Your task to perform on an android device: open app "Walmart Shopping & Grocery" (install if not already installed) Image 0: 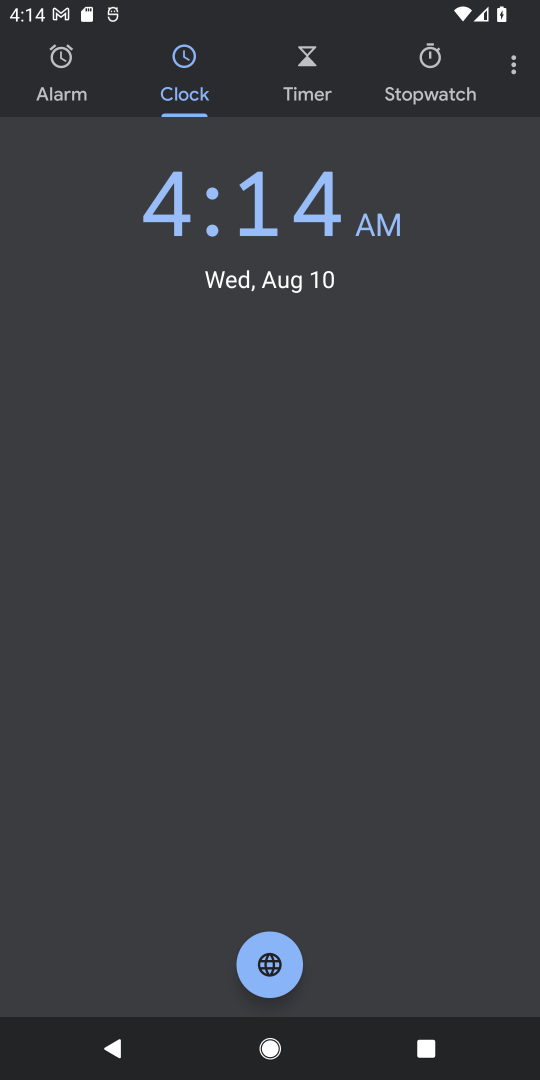
Step 0: press home button
Your task to perform on an android device: open app "Walmart Shopping & Grocery" (install if not already installed) Image 1: 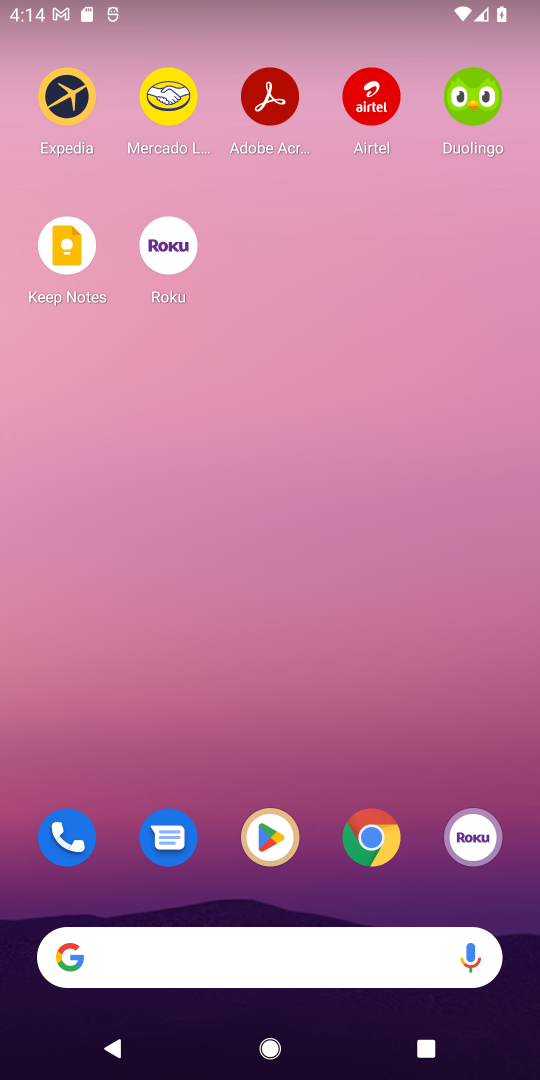
Step 1: press home button
Your task to perform on an android device: open app "Walmart Shopping & Grocery" (install if not already installed) Image 2: 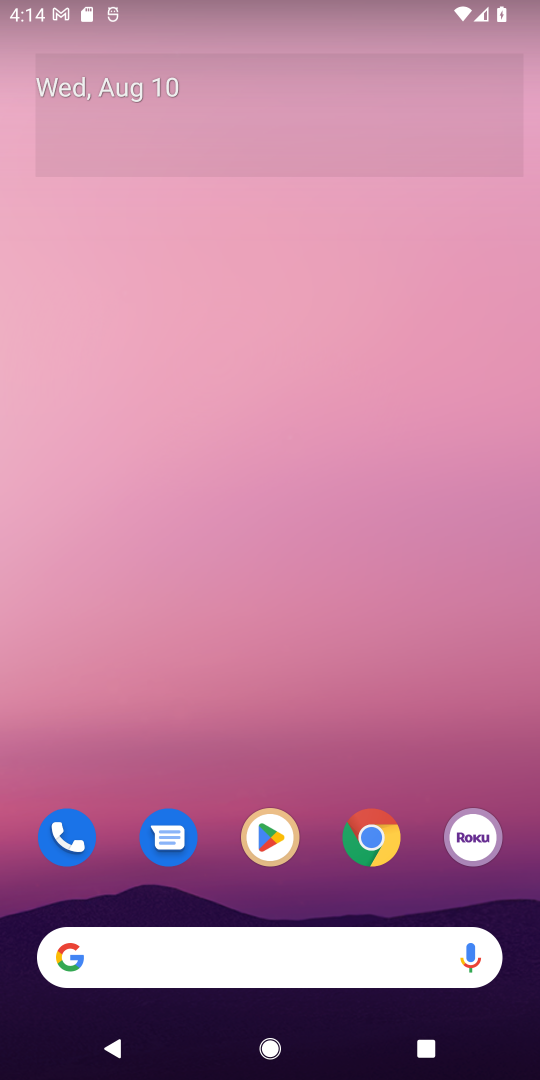
Step 2: click (268, 818)
Your task to perform on an android device: open app "Walmart Shopping & Grocery" (install if not already installed) Image 3: 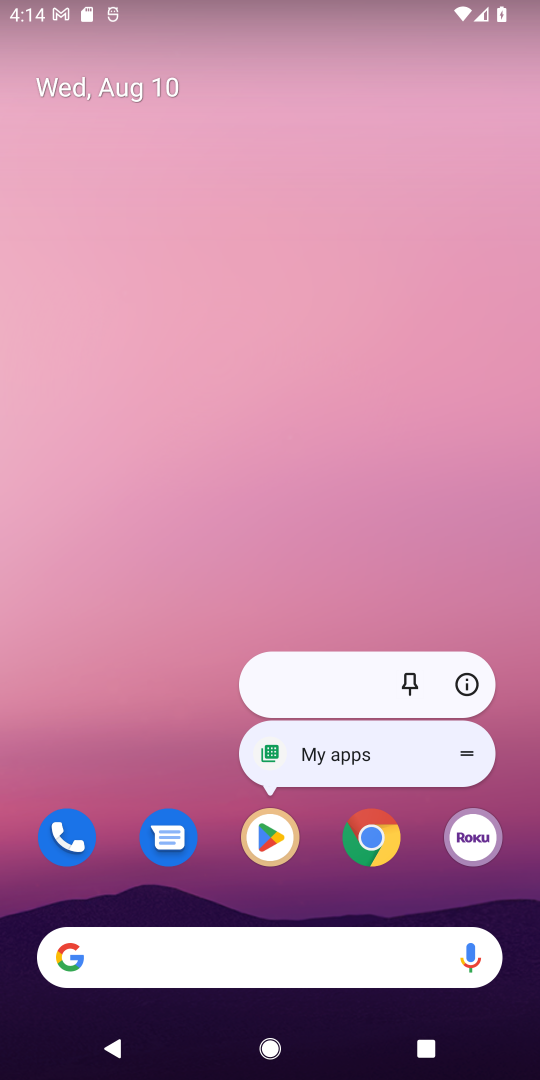
Step 3: click (268, 816)
Your task to perform on an android device: open app "Walmart Shopping & Grocery" (install if not already installed) Image 4: 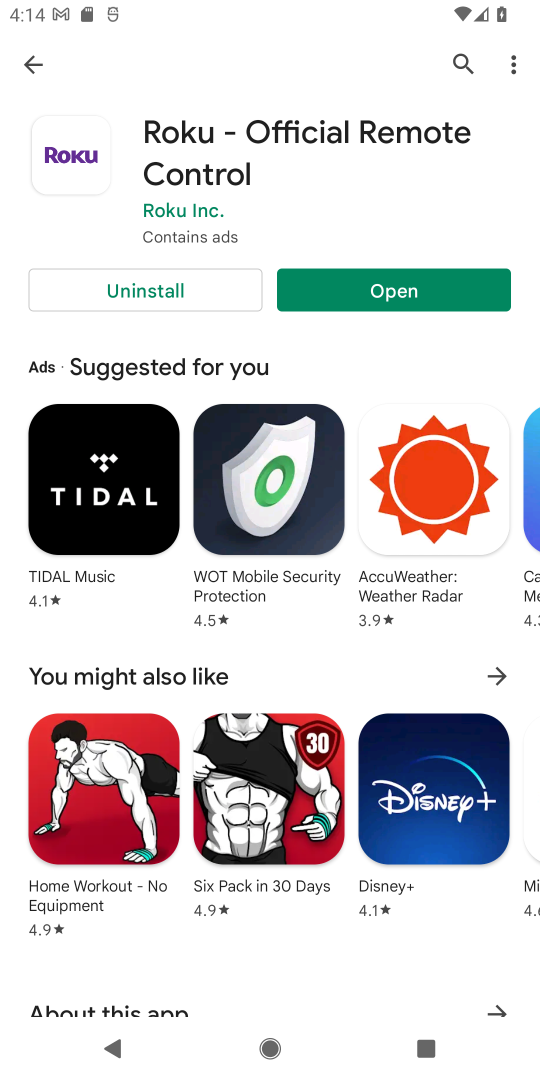
Step 4: click (463, 61)
Your task to perform on an android device: open app "Walmart Shopping & Grocery" (install if not already installed) Image 5: 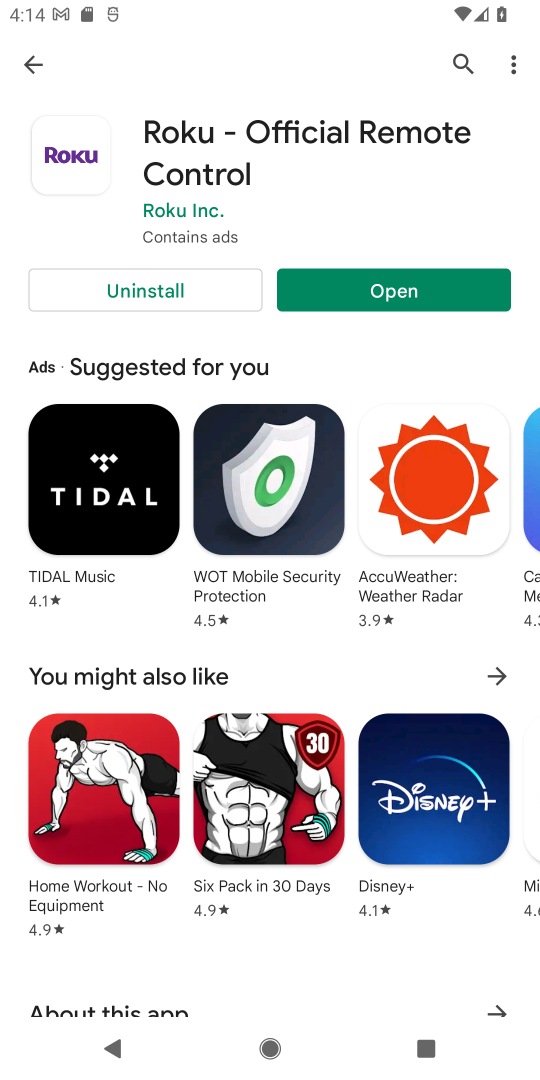
Step 5: click (463, 49)
Your task to perform on an android device: open app "Walmart Shopping & Grocery" (install if not already installed) Image 6: 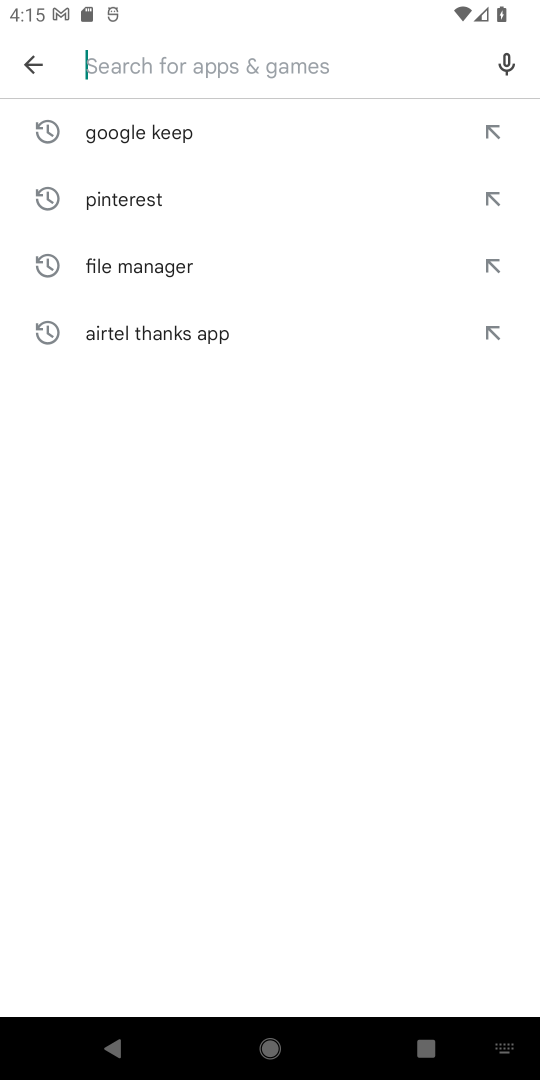
Step 6: type "Walmart Shopping & Grocery"
Your task to perform on an android device: open app "Walmart Shopping & Grocery" (install if not already installed) Image 7: 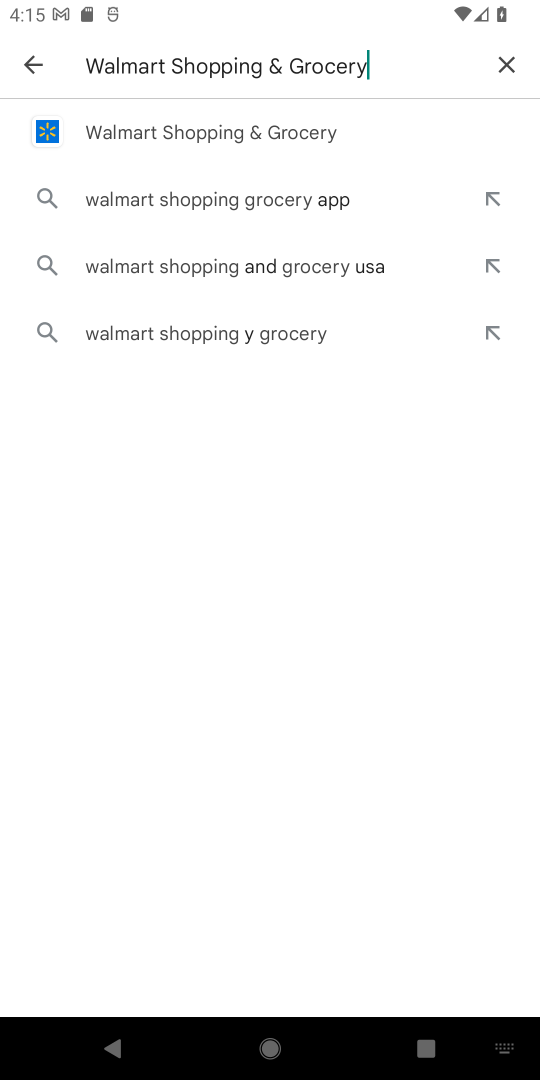
Step 7: click (199, 138)
Your task to perform on an android device: open app "Walmart Shopping & Grocery" (install if not already installed) Image 8: 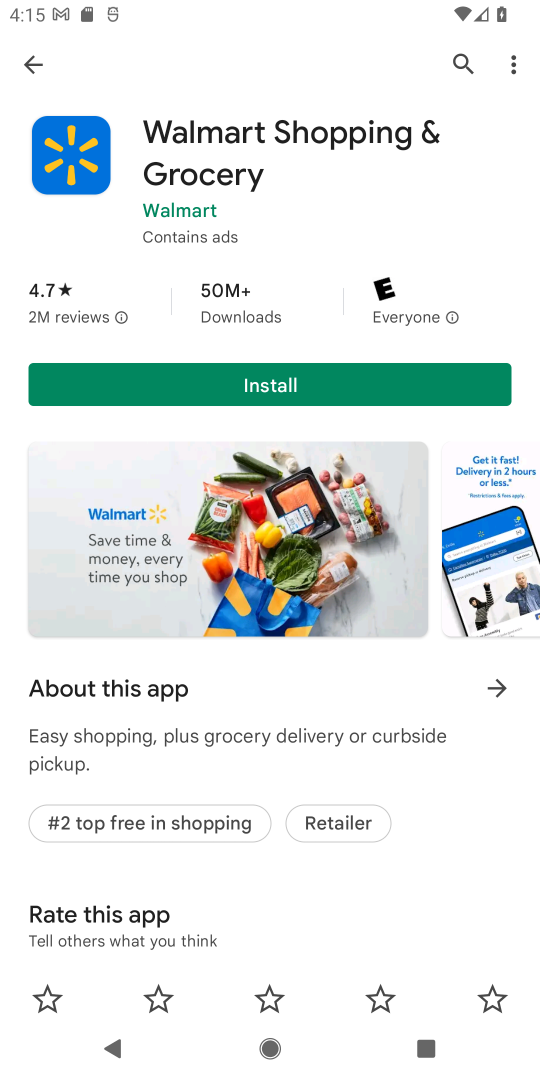
Step 8: click (266, 385)
Your task to perform on an android device: open app "Walmart Shopping & Grocery" (install if not already installed) Image 9: 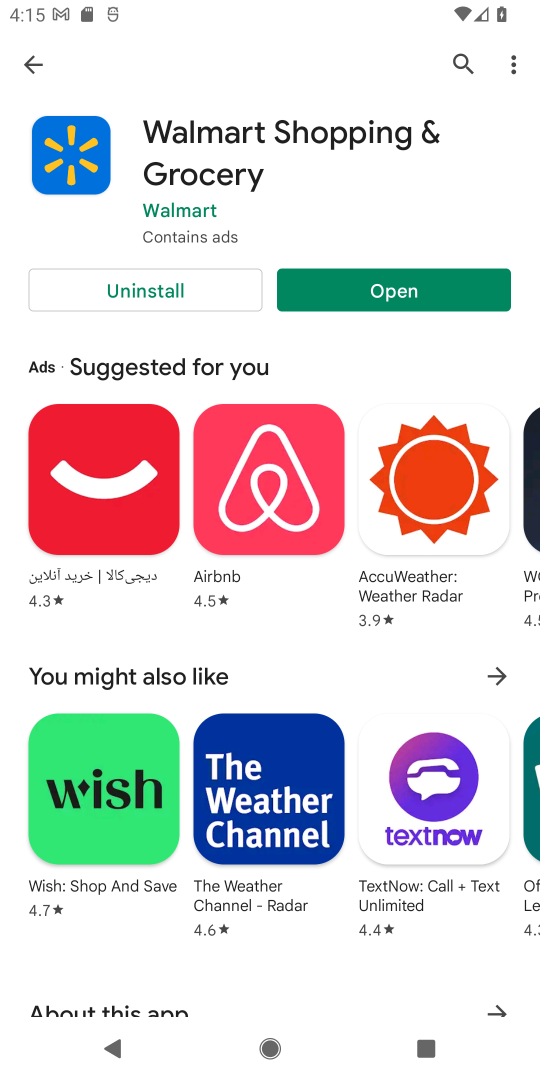
Step 9: click (426, 285)
Your task to perform on an android device: open app "Walmart Shopping & Grocery" (install if not already installed) Image 10: 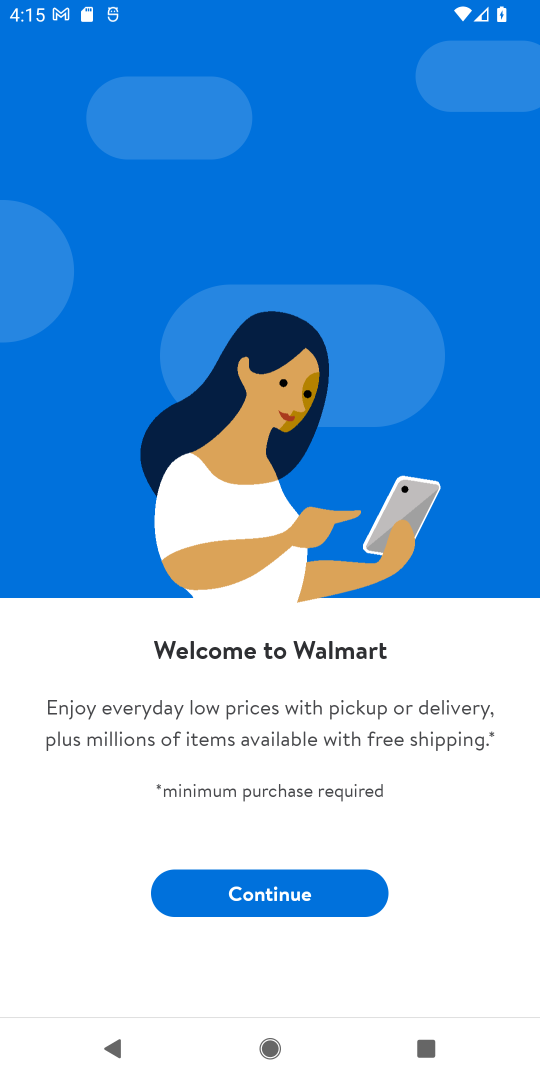
Step 10: task complete